Your task to perform on an android device: check google app version Image 0: 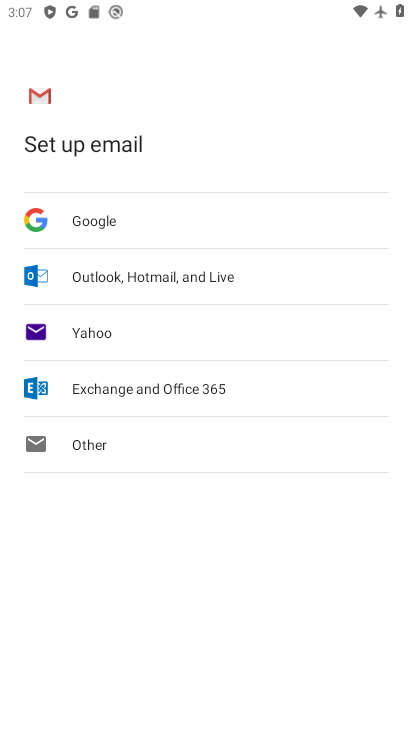
Step 0: press home button
Your task to perform on an android device: check google app version Image 1: 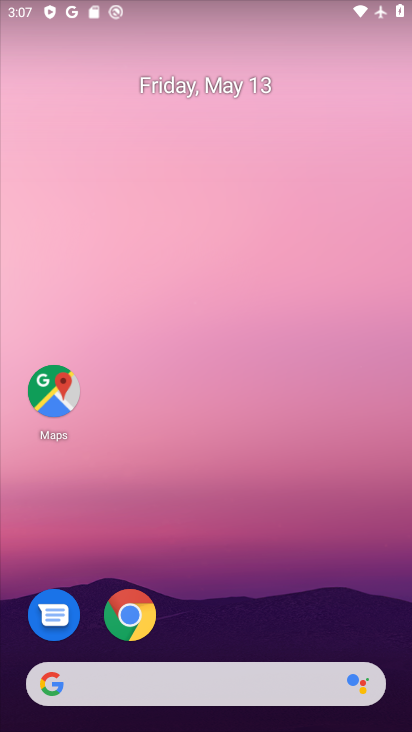
Step 1: drag from (204, 621) to (334, 226)
Your task to perform on an android device: check google app version Image 2: 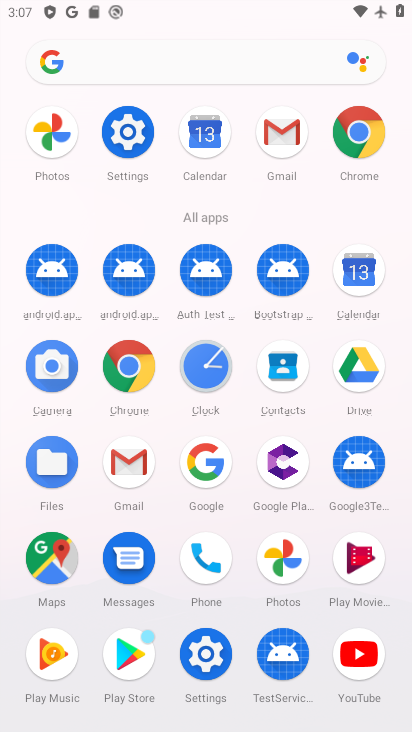
Step 2: click (200, 469)
Your task to perform on an android device: check google app version Image 3: 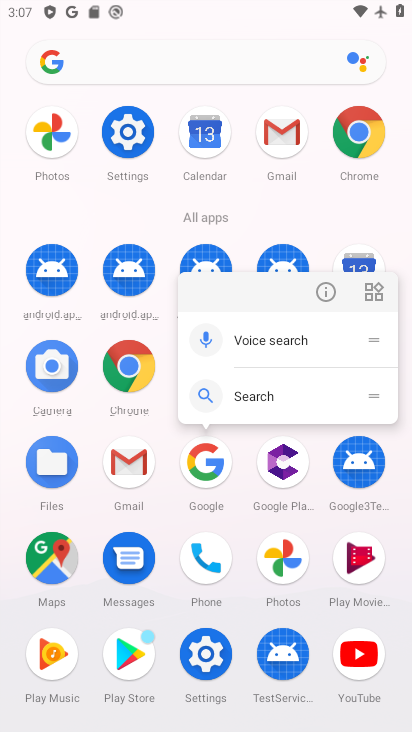
Step 3: click (330, 292)
Your task to perform on an android device: check google app version Image 4: 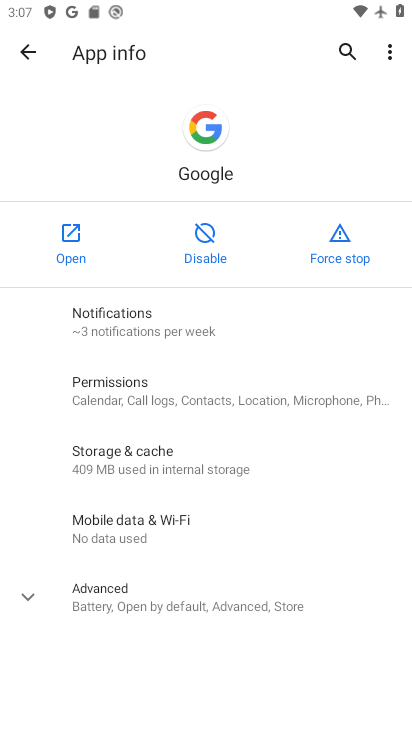
Step 4: drag from (255, 610) to (402, 62)
Your task to perform on an android device: check google app version Image 5: 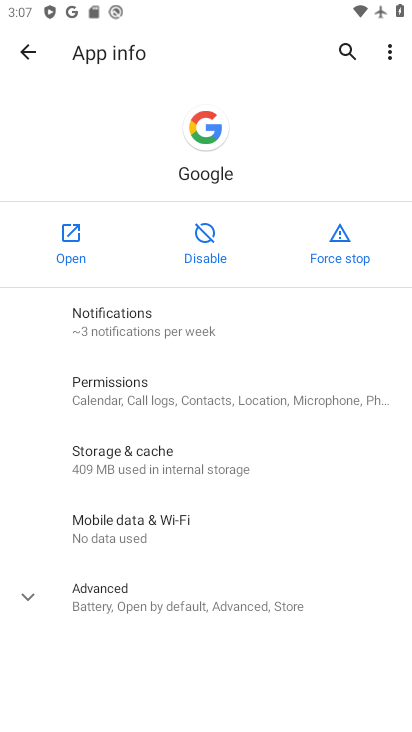
Step 5: click (135, 594)
Your task to perform on an android device: check google app version Image 6: 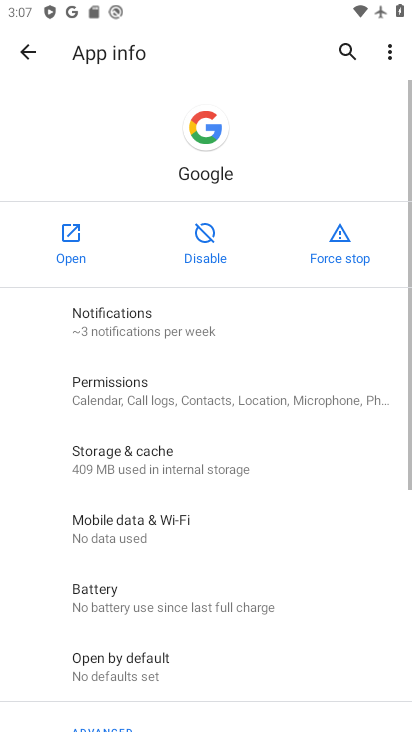
Step 6: task complete